Your task to perform on an android device: check android version Image 0: 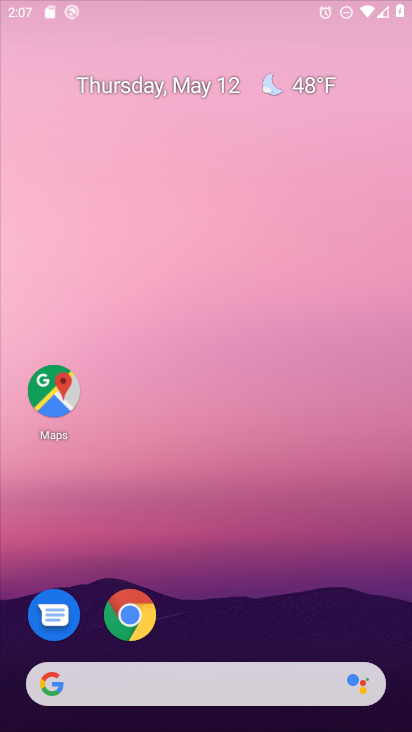
Step 0: drag from (266, 640) to (287, 20)
Your task to perform on an android device: check android version Image 1: 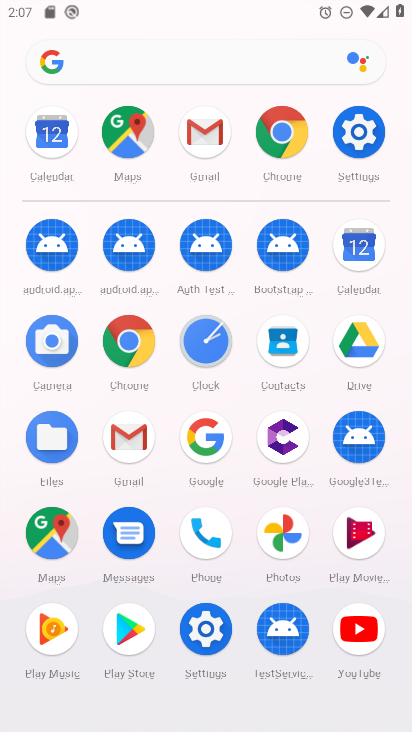
Step 1: click (358, 139)
Your task to perform on an android device: check android version Image 2: 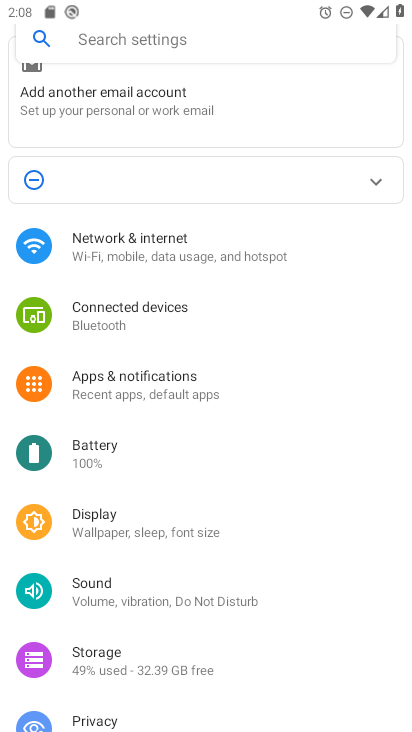
Step 2: drag from (179, 703) to (243, 48)
Your task to perform on an android device: check android version Image 3: 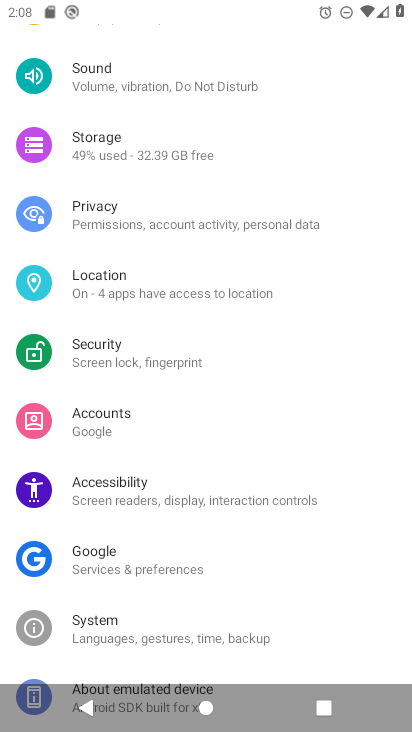
Step 3: drag from (248, 658) to (299, 315)
Your task to perform on an android device: check android version Image 4: 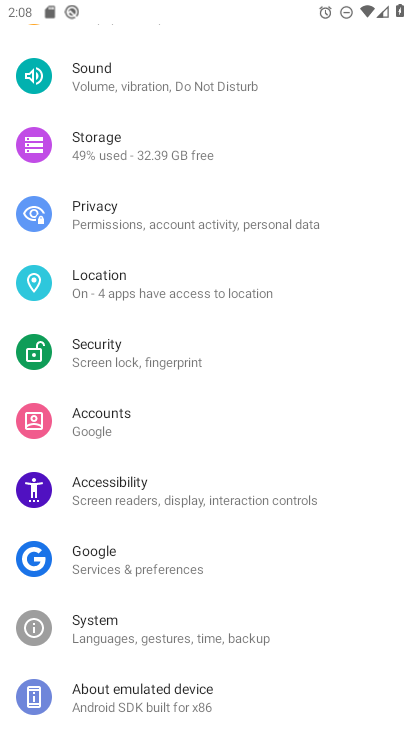
Step 4: click (220, 713)
Your task to perform on an android device: check android version Image 5: 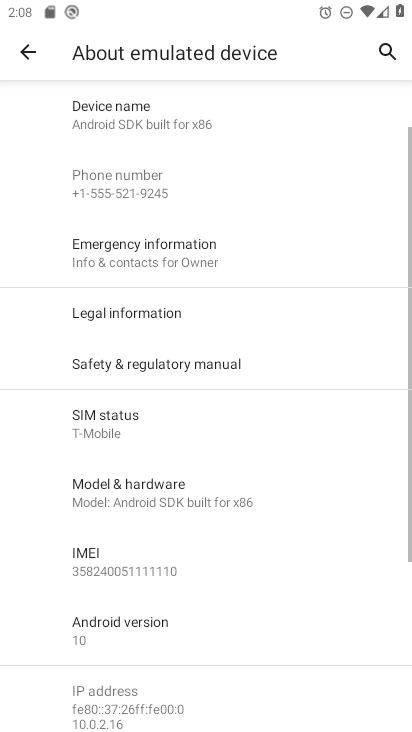
Step 5: click (162, 641)
Your task to perform on an android device: check android version Image 6: 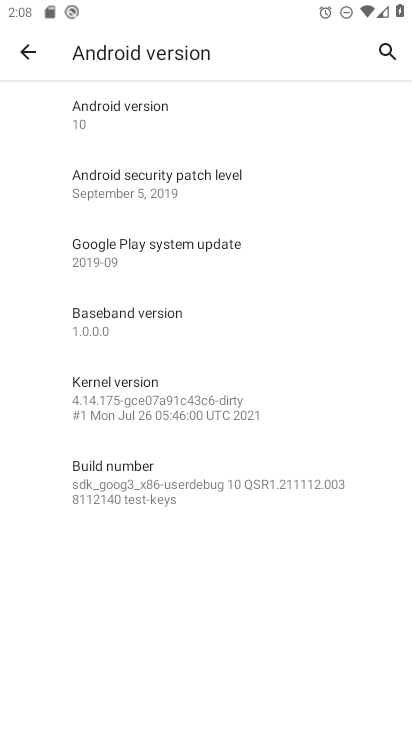
Step 6: task complete